Your task to perform on an android device: find snoozed emails in the gmail app Image 0: 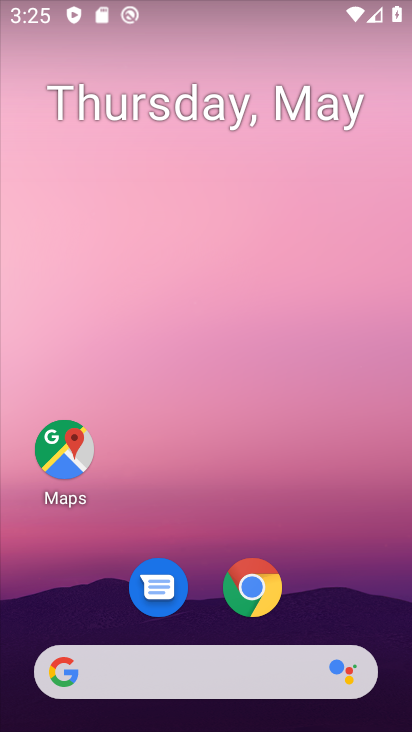
Step 0: drag from (334, 549) to (252, 29)
Your task to perform on an android device: find snoozed emails in the gmail app Image 1: 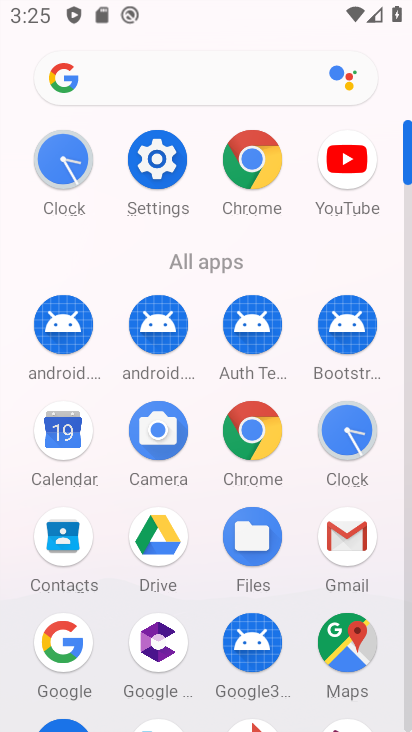
Step 1: drag from (10, 582) to (29, 279)
Your task to perform on an android device: find snoozed emails in the gmail app Image 2: 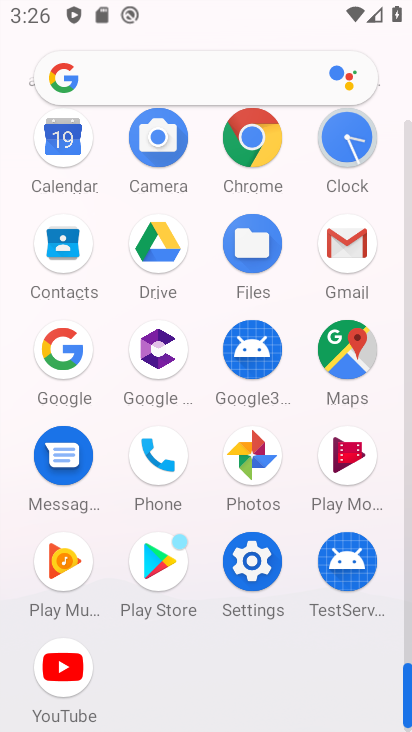
Step 2: click (355, 236)
Your task to perform on an android device: find snoozed emails in the gmail app Image 3: 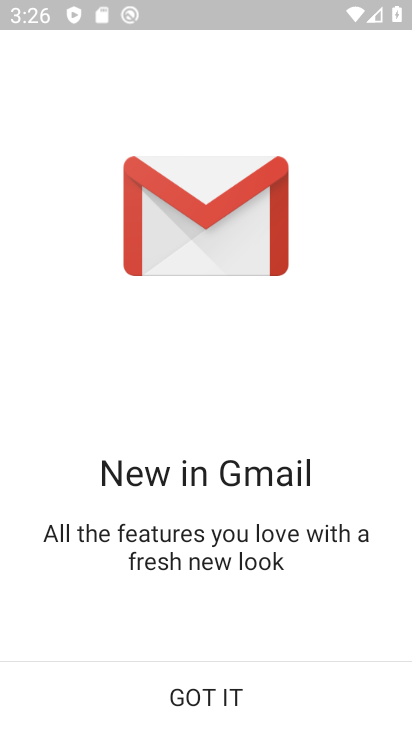
Step 3: click (200, 709)
Your task to perform on an android device: find snoozed emails in the gmail app Image 4: 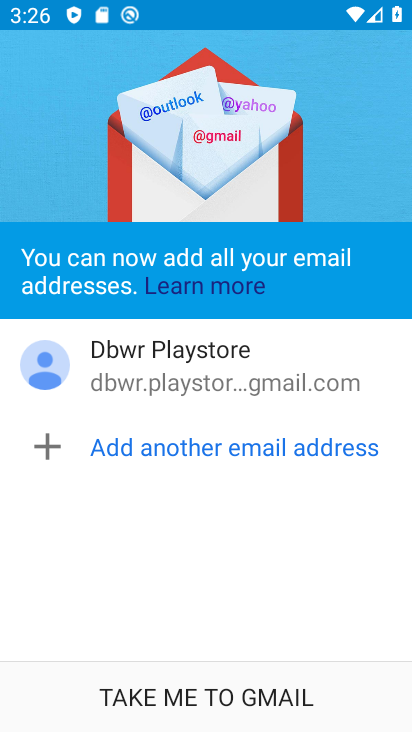
Step 4: click (177, 695)
Your task to perform on an android device: find snoozed emails in the gmail app Image 5: 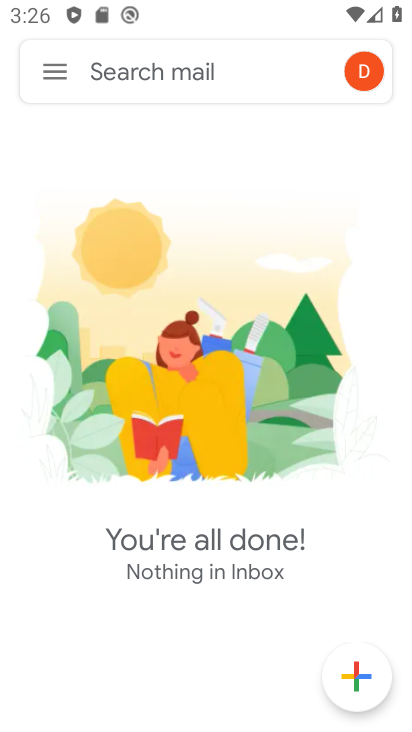
Step 5: click (60, 65)
Your task to perform on an android device: find snoozed emails in the gmail app Image 6: 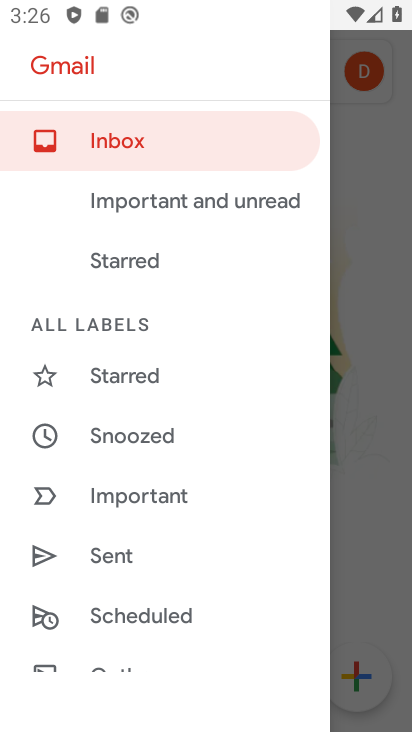
Step 6: click (137, 431)
Your task to perform on an android device: find snoozed emails in the gmail app Image 7: 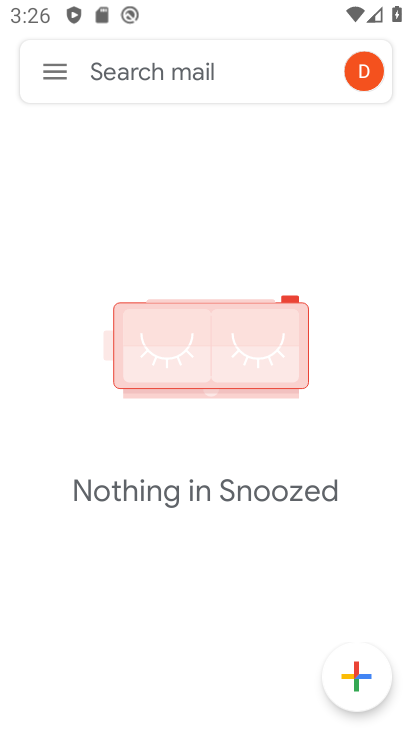
Step 7: task complete